Your task to perform on an android device: See recent photos Image 0: 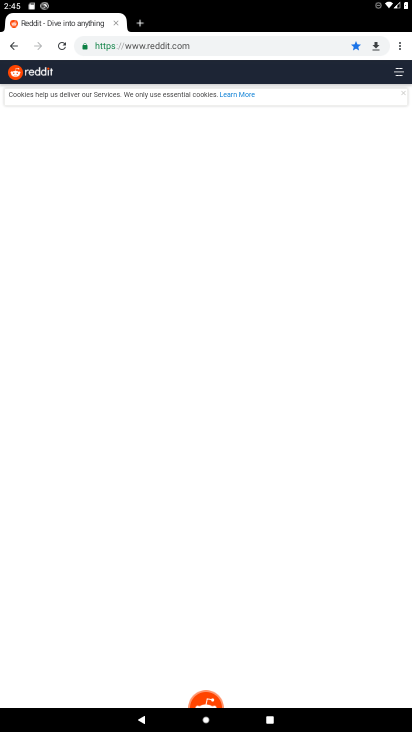
Step 0: press home button
Your task to perform on an android device: See recent photos Image 1: 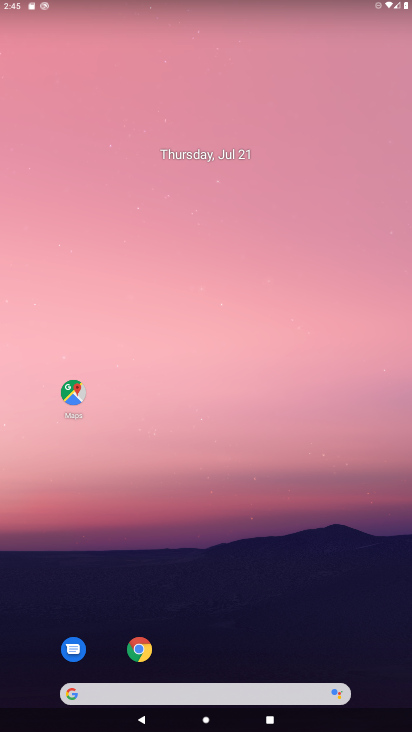
Step 1: drag from (333, 574) to (263, 42)
Your task to perform on an android device: See recent photos Image 2: 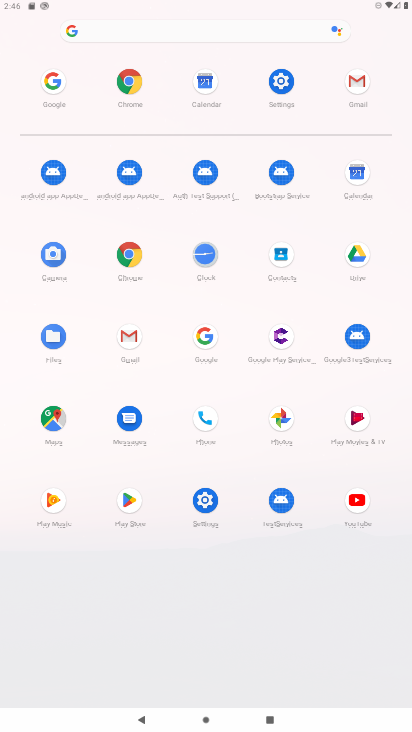
Step 2: click (278, 422)
Your task to perform on an android device: See recent photos Image 3: 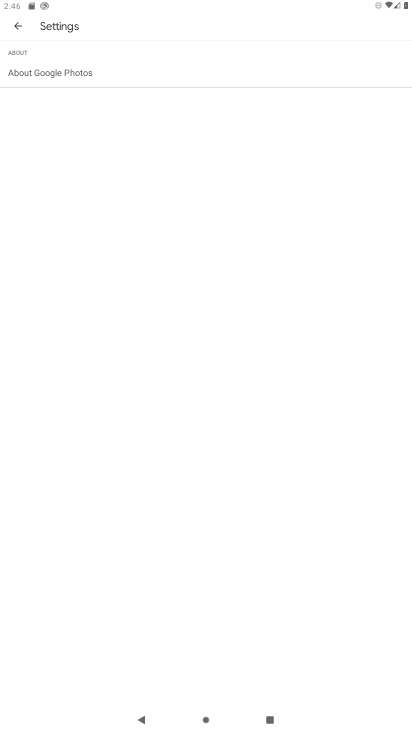
Step 3: click (24, 26)
Your task to perform on an android device: See recent photos Image 4: 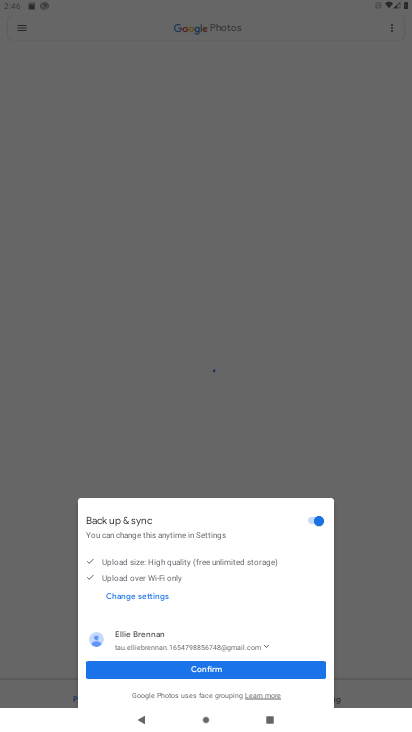
Step 4: click (218, 666)
Your task to perform on an android device: See recent photos Image 5: 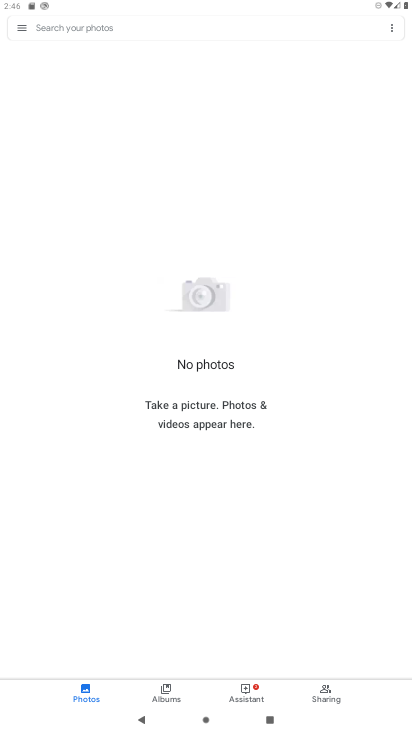
Step 5: task complete